Your task to perform on an android device: open a bookmark in the chrome app Image 0: 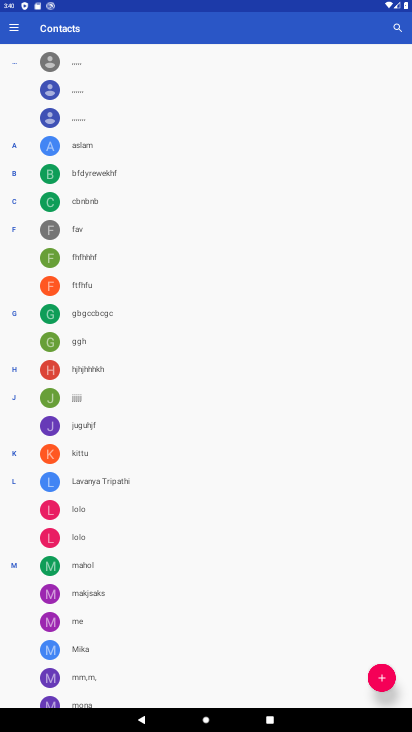
Step 0: press home button
Your task to perform on an android device: open a bookmark in the chrome app Image 1: 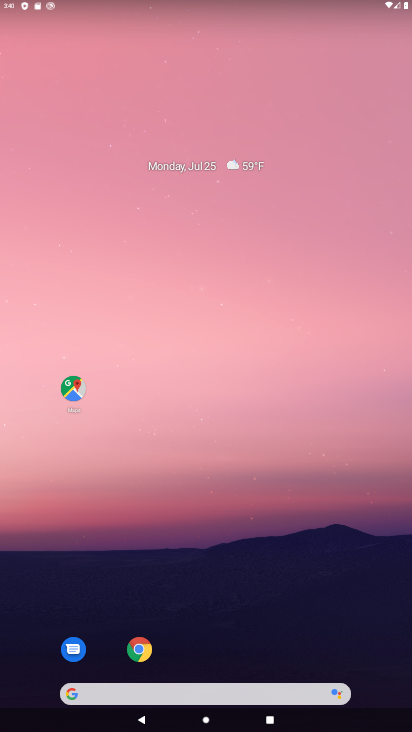
Step 1: drag from (142, 631) to (247, 248)
Your task to perform on an android device: open a bookmark in the chrome app Image 2: 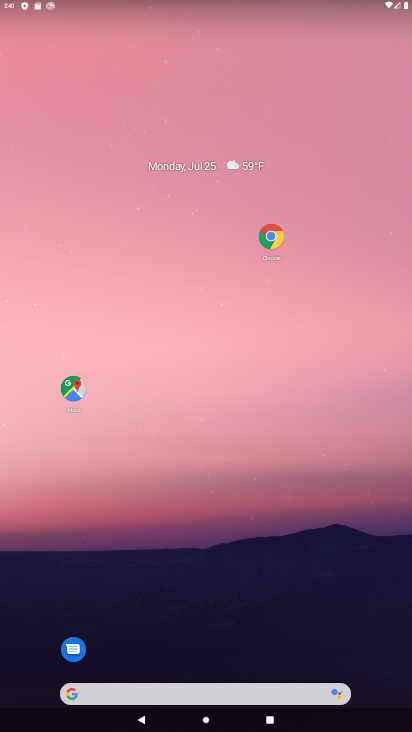
Step 2: drag from (236, 653) to (265, 160)
Your task to perform on an android device: open a bookmark in the chrome app Image 3: 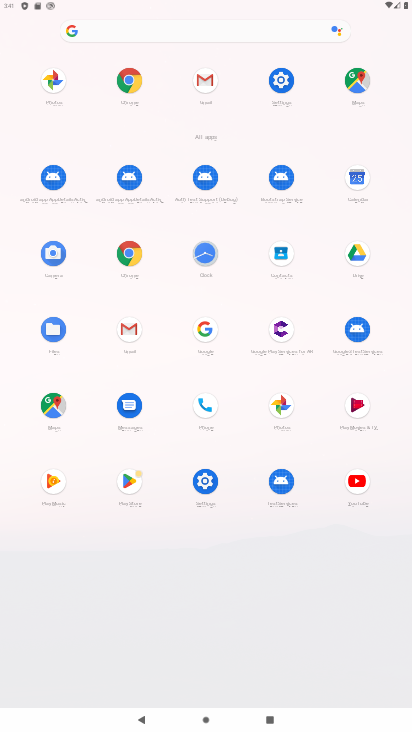
Step 3: click (135, 268)
Your task to perform on an android device: open a bookmark in the chrome app Image 4: 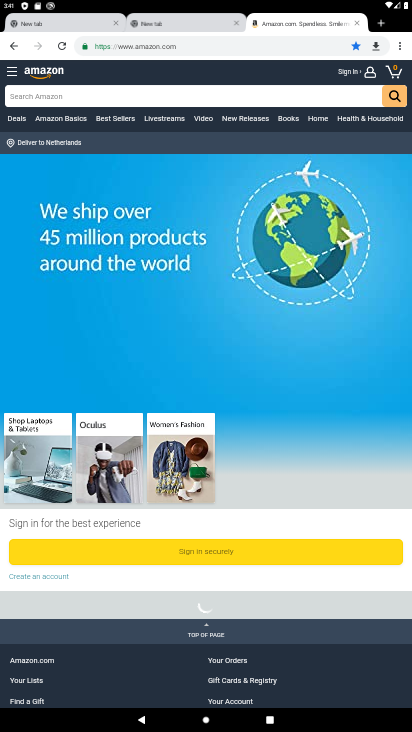
Step 4: click (390, 131)
Your task to perform on an android device: open a bookmark in the chrome app Image 5: 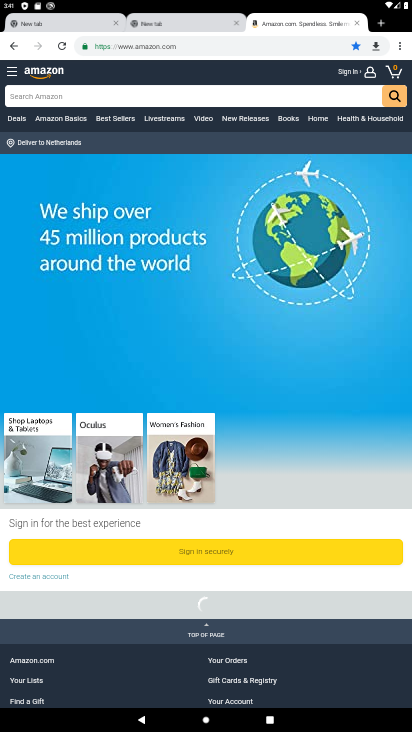
Step 5: click (390, 131)
Your task to perform on an android device: open a bookmark in the chrome app Image 6: 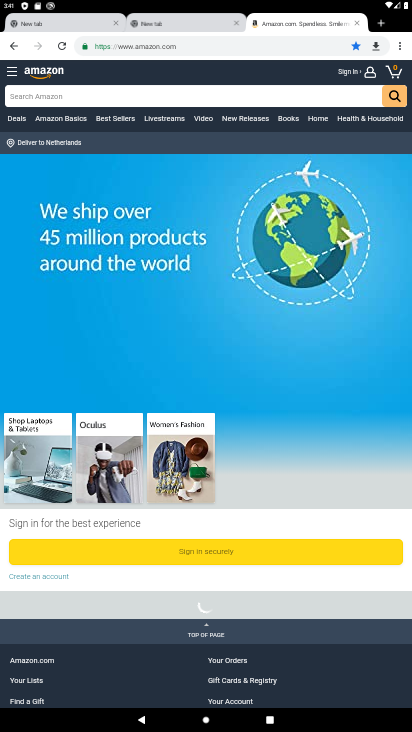
Step 6: click (406, 45)
Your task to perform on an android device: open a bookmark in the chrome app Image 7: 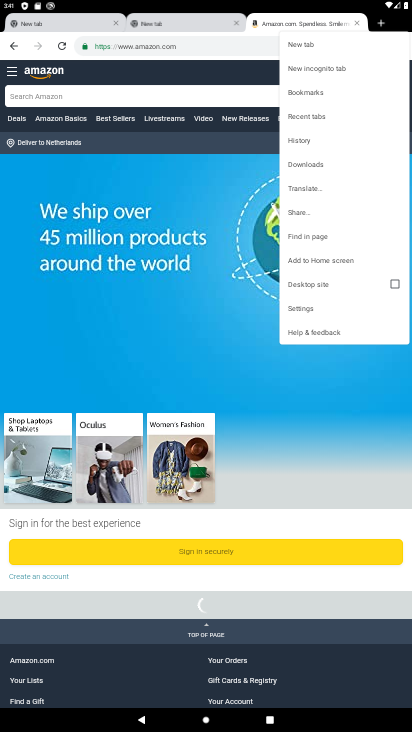
Step 7: click (311, 91)
Your task to perform on an android device: open a bookmark in the chrome app Image 8: 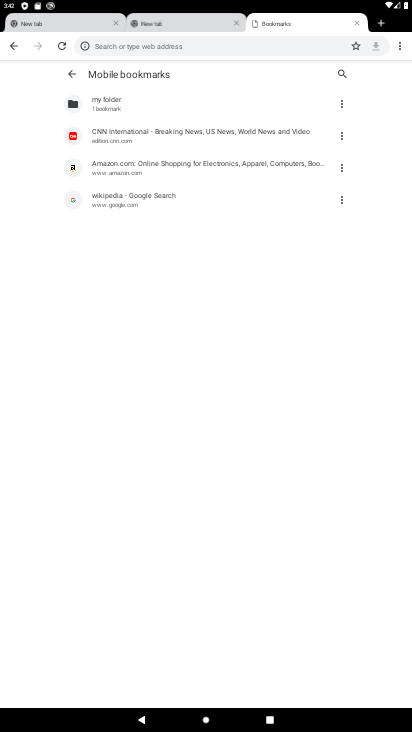
Step 8: click (123, 172)
Your task to perform on an android device: open a bookmark in the chrome app Image 9: 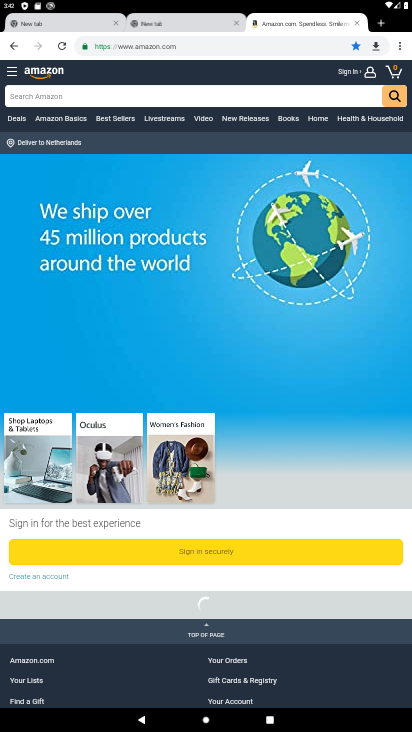
Step 9: task complete